Your task to perform on an android device: When is my next appointment? Image 0: 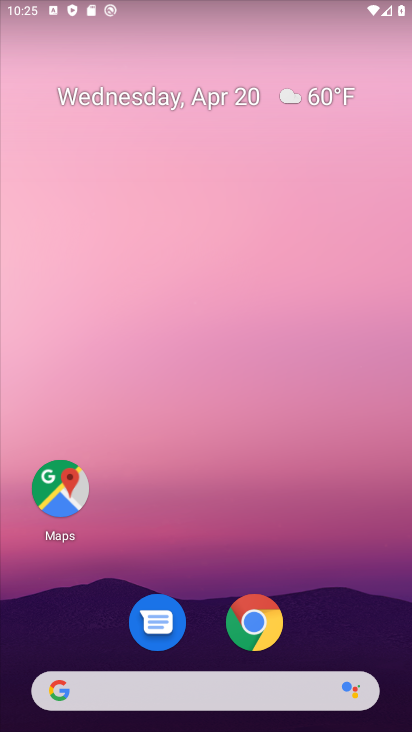
Step 0: drag from (406, 600) to (306, 55)
Your task to perform on an android device: When is my next appointment? Image 1: 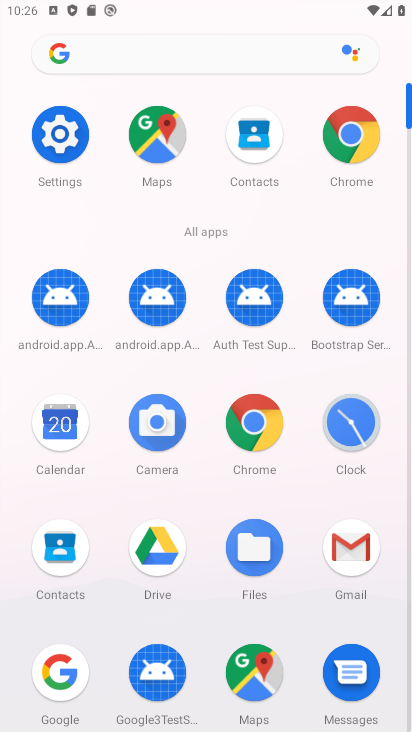
Step 1: click (52, 426)
Your task to perform on an android device: When is my next appointment? Image 2: 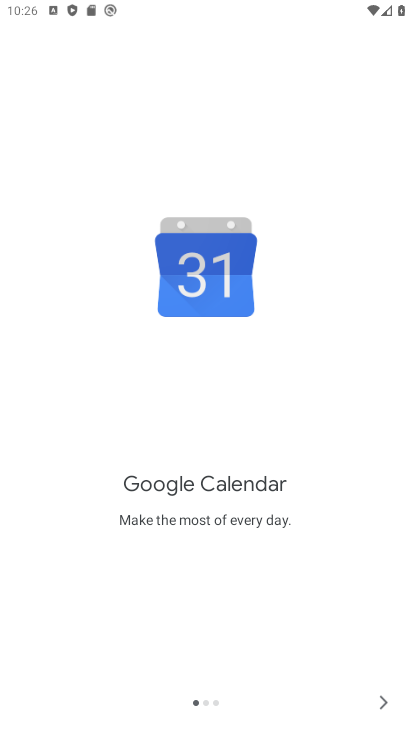
Step 2: click (392, 703)
Your task to perform on an android device: When is my next appointment? Image 3: 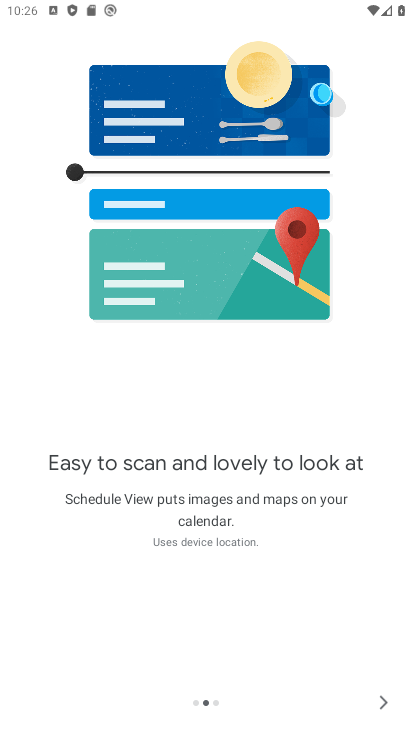
Step 3: click (382, 710)
Your task to perform on an android device: When is my next appointment? Image 4: 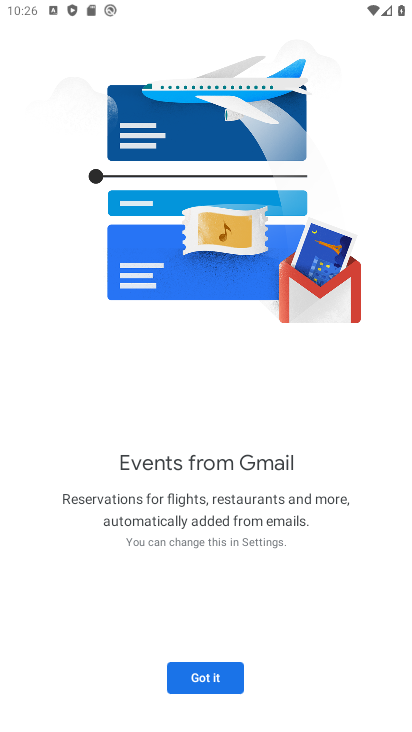
Step 4: click (202, 681)
Your task to perform on an android device: When is my next appointment? Image 5: 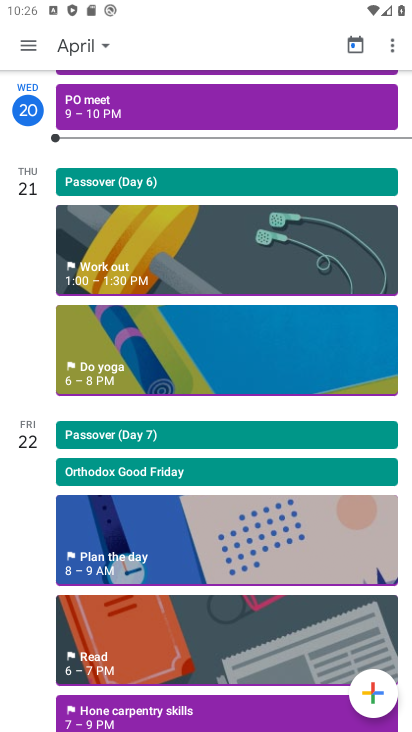
Step 5: click (78, 39)
Your task to perform on an android device: When is my next appointment? Image 6: 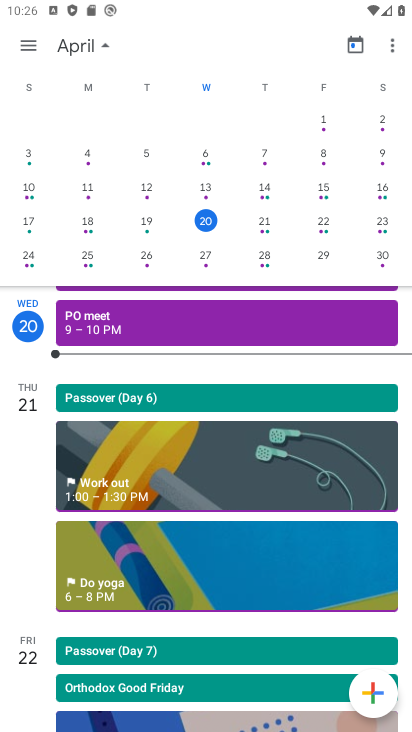
Step 6: click (266, 226)
Your task to perform on an android device: When is my next appointment? Image 7: 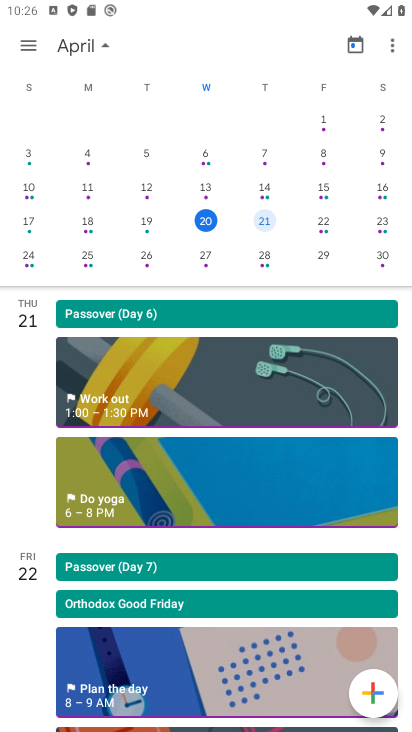
Step 7: task complete